Your task to perform on an android device: Toggle the flashlight Image 0: 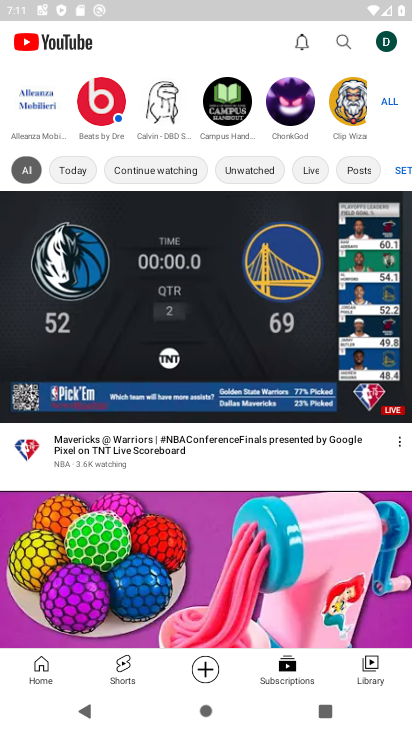
Step 0: press home button
Your task to perform on an android device: Toggle the flashlight Image 1: 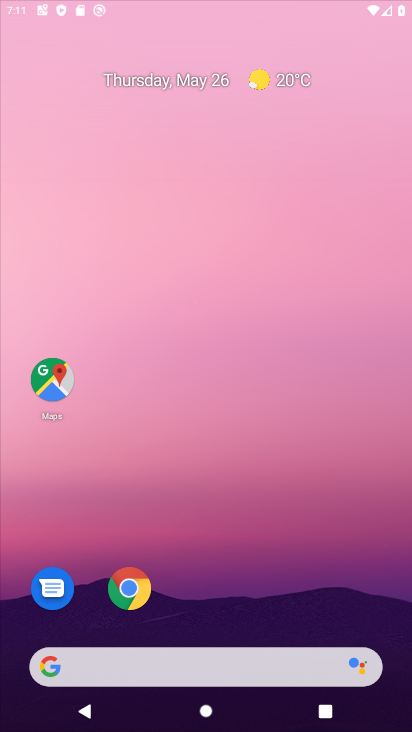
Step 1: drag from (363, 617) to (294, 73)
Your task to perform on an android device: Toggle the flashlight Image 2: 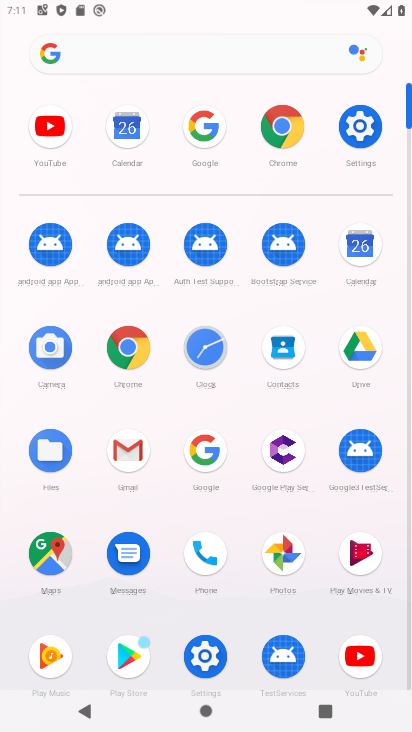
Step 2: click (358, 142)
Your task to perform on an android device: Toggle the flashlight Image 3: 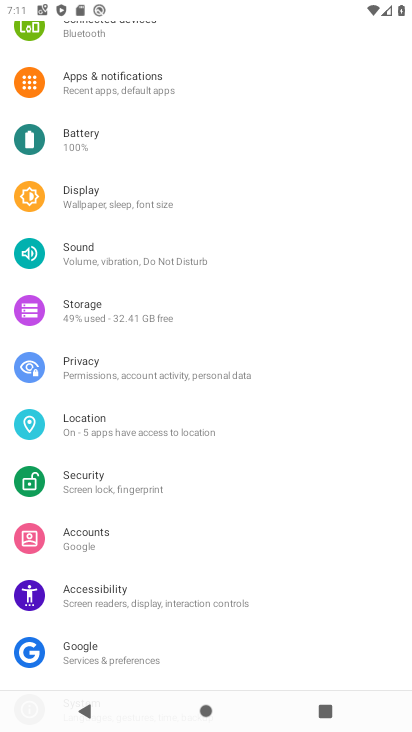
Step 3: task complete